Your task to perform on an android device: move a message to another label in the gmail app Image 0: 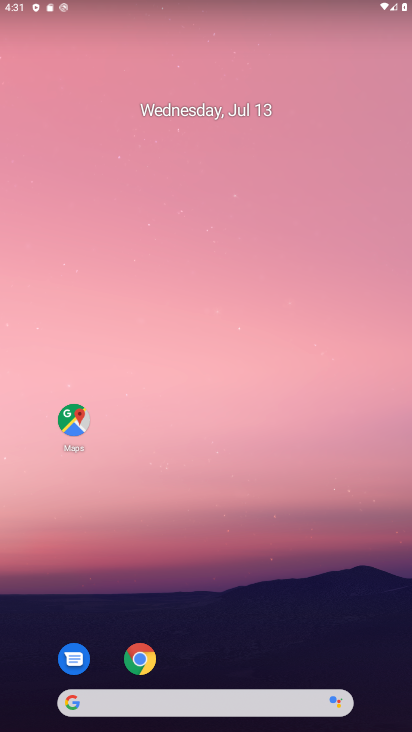
Step 0: drag from (325, 592) to (296, 62)
Your task to perform on an android device: move a message to another label in the gmail app Image 1: 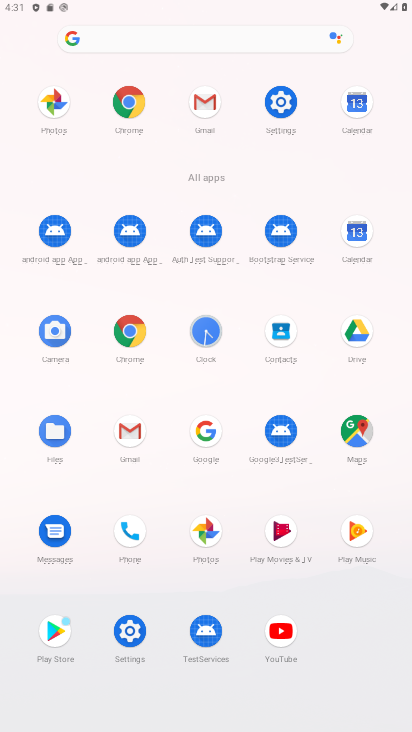
Step 1: click (200, 105)
Your task to perform on an android device: move a message to another label in the gmail app Image 2: 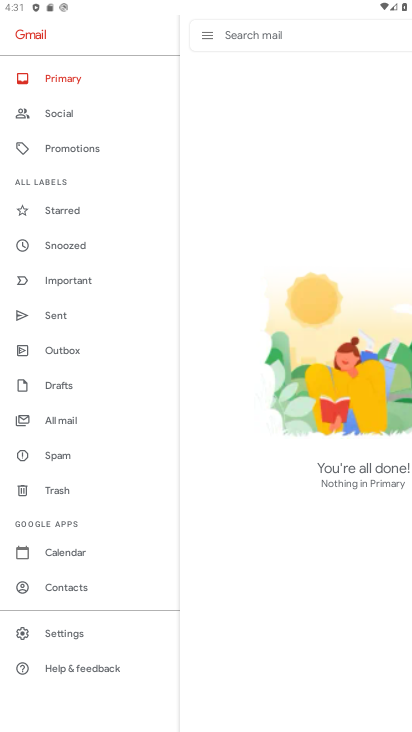
Step 2: click (68, 413)
Your task to perform on an android device: move a message to another label in the gmail app Image 3: 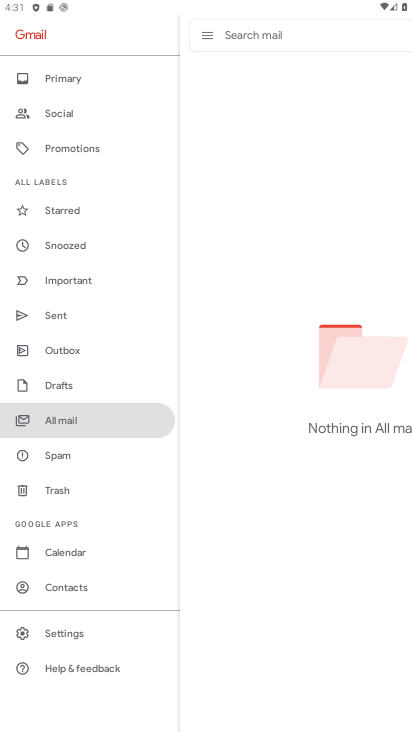
Step 3: task complete